Your task to perform on an android device: turn off priority inbox in the gmail app Image 0: 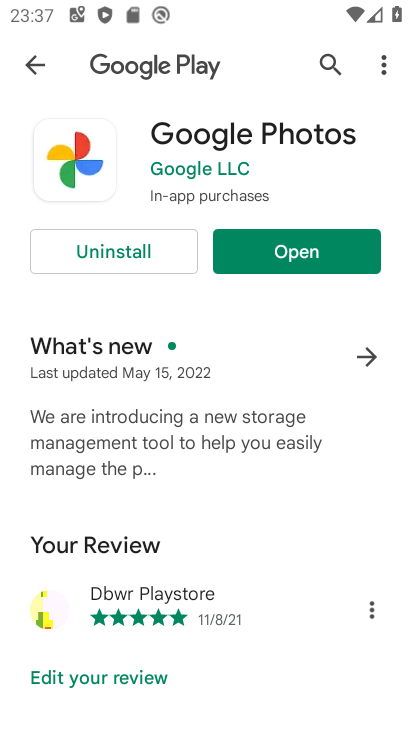
Step 0: press back button
Your task to perform on an android device: turn off priority inbox in the gmail app Image 1: 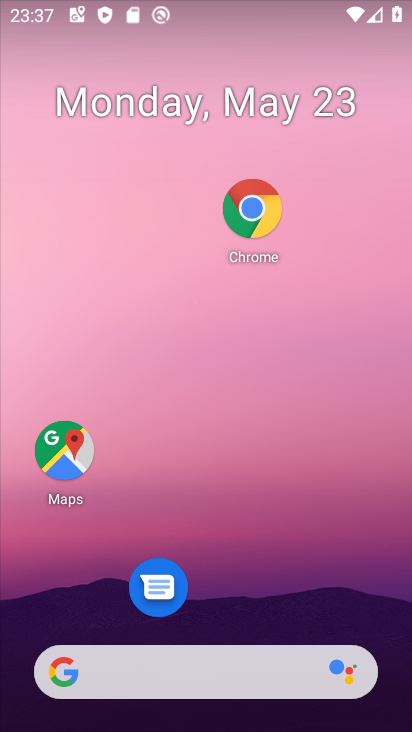
Step 1: drag from (328, 600) to (269, 233)
Your task to perform on an android device: turn off priority inbox in the gmail app Image 2: 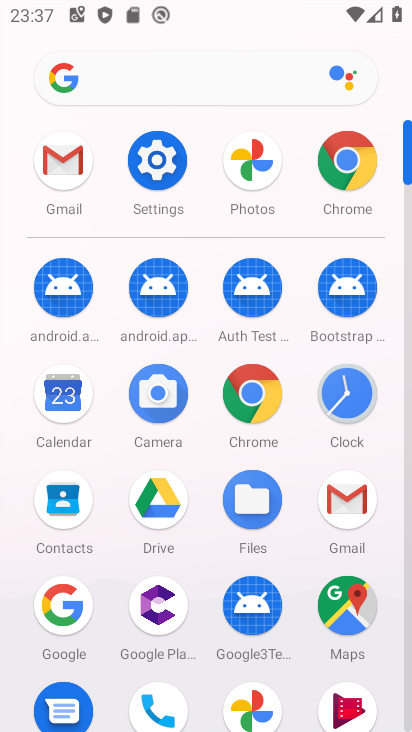
Step 2: click (342, 487)
Your task to perform on an android device: turn off priority inbox in the gmail app Image 3: 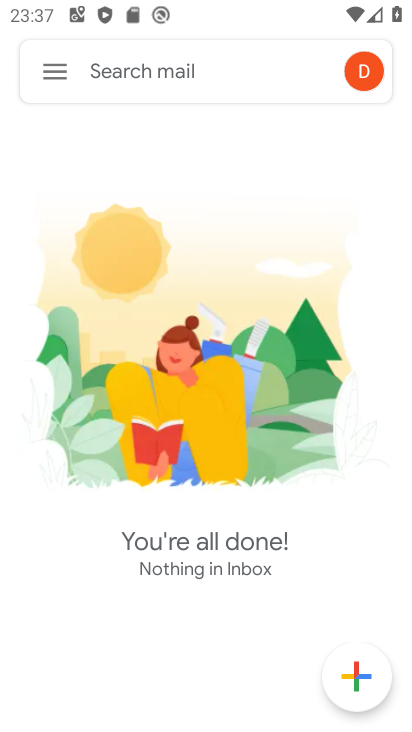
Step 3: click (49, 78)
Your task to perform on an android device: turn off priority inbox in the gmail app Image 4: 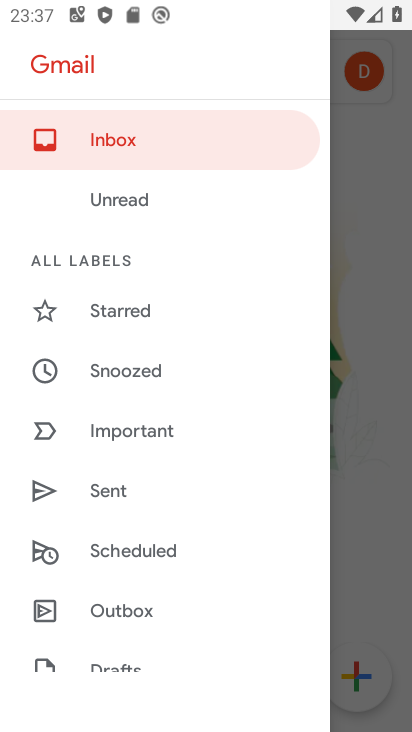
Step 4: click (94, 181)
Your task to perform on an android device: turn off priority inbox in the gmail app Image 5: 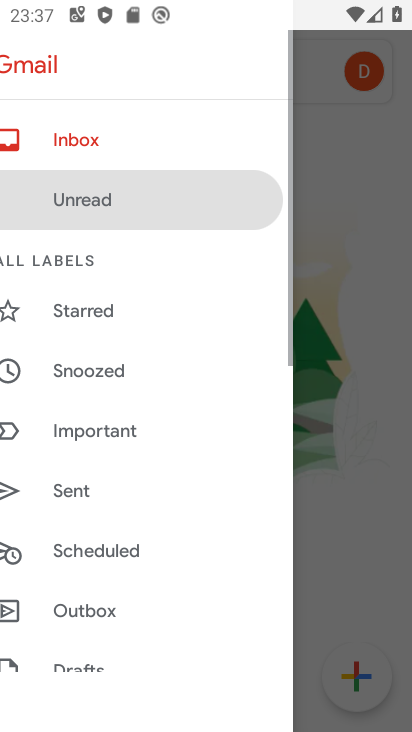
Step 5: drag from (166, 408) to (164, 25)
Your task to perform on an android device: turn off priority inbox in the gmail app Image 6: 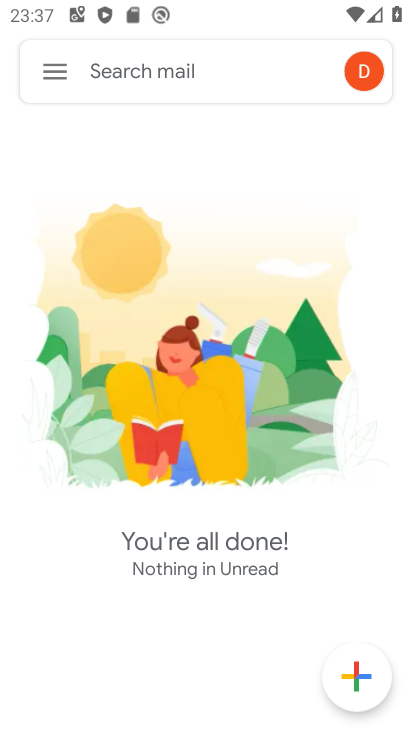
Step 6: click (56, 71)
Your task to perform on an android device: turn off priority inbox in the gmail app Image 7: 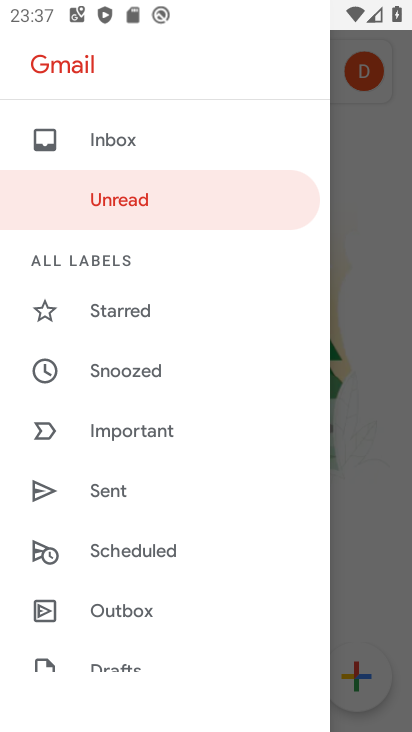
Step 7: drag from (166, 556) to (150, 226)
Your task to perform on an android device: turn off priority inbox in the gmail app Image 8: 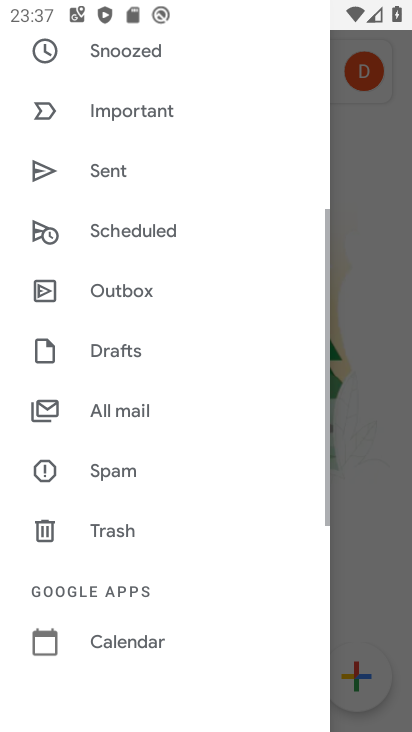
Step 8: drag from (190, 527) to (179, 244)
Your task to perform on an android device: turn off priority inbox in the gmail app Image 9: 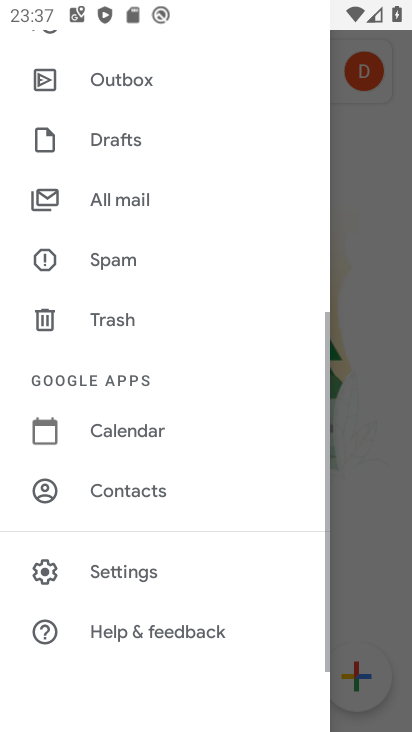
Step 9: click (129, 572)
Your task to perform on an android device: turn off priority inbox in the gmail app Image 10: 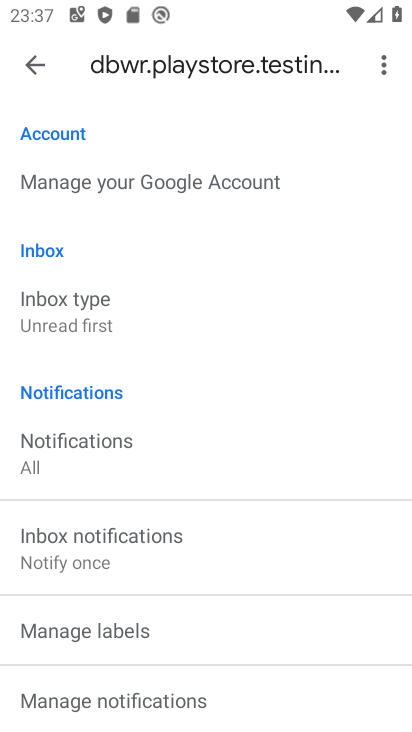
Step 10: click (59, 294)
Your task to perform on an android device: turn off priority inbox in the gmail app Image 11: 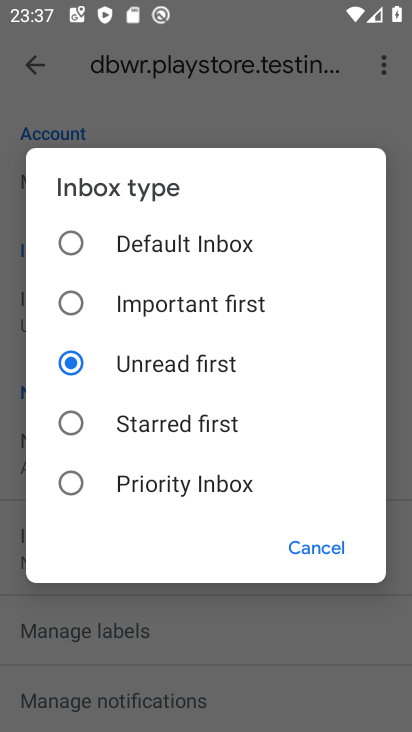
Step 11: click (68, 495)
Your task to perform on an android device: turn off priority inbox in the gmail app Image 12: 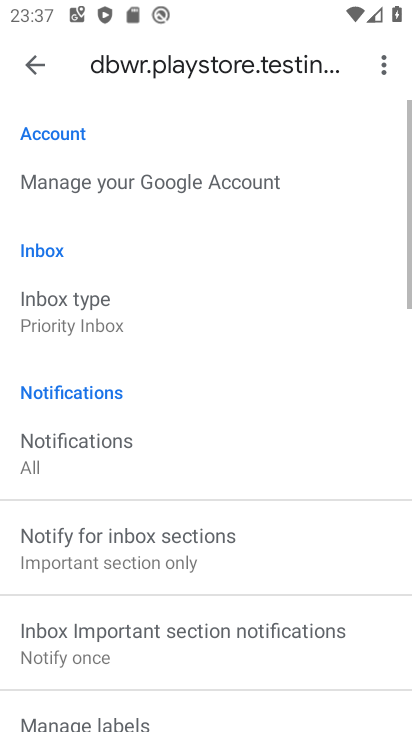
Step 12: click (58, 310)
Your task to perform on an android device: turn off priority inbox in the gmail app Image 13: 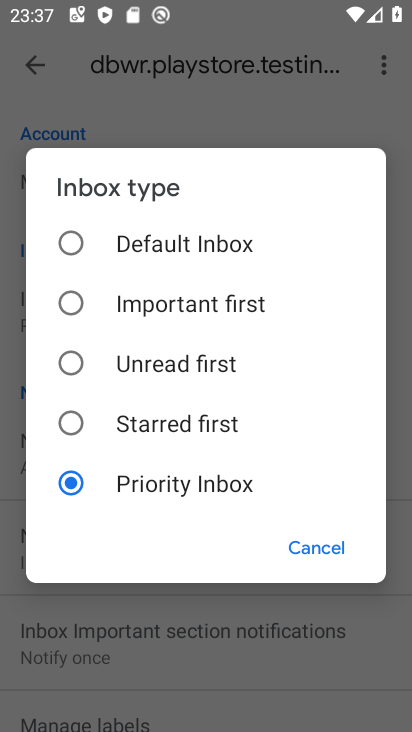
Step 13: click (65, 371)
Your task to perform on an android device: turn off priority inbox in the gmail app Image 14: 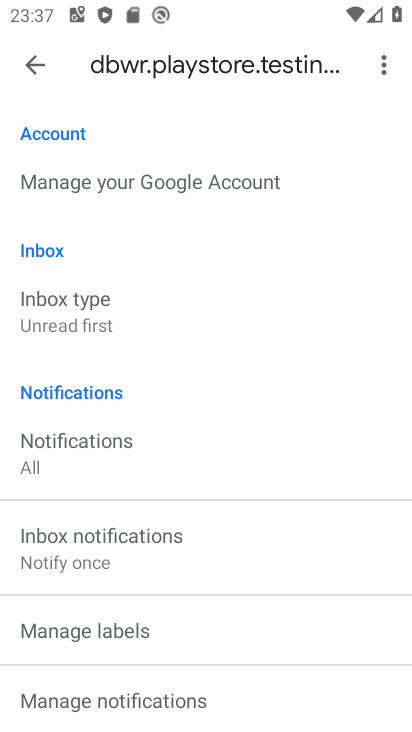
Step 14: task complete